Your task to perform on an android device: When is my next appointment? Image 0: 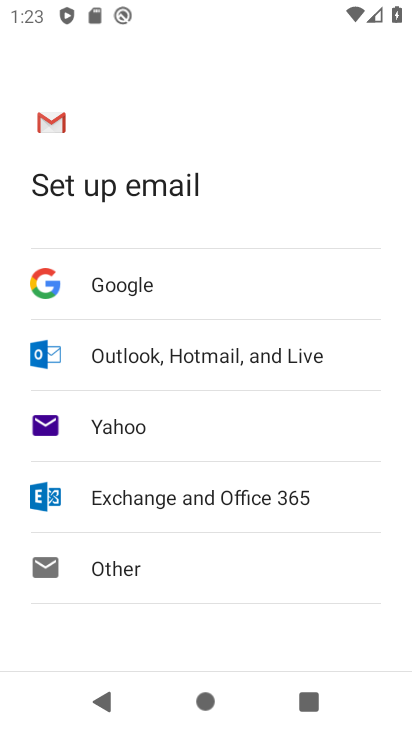
Step 0: press home button
Your task to perform on an android device: When is my next appointment? Image 1: 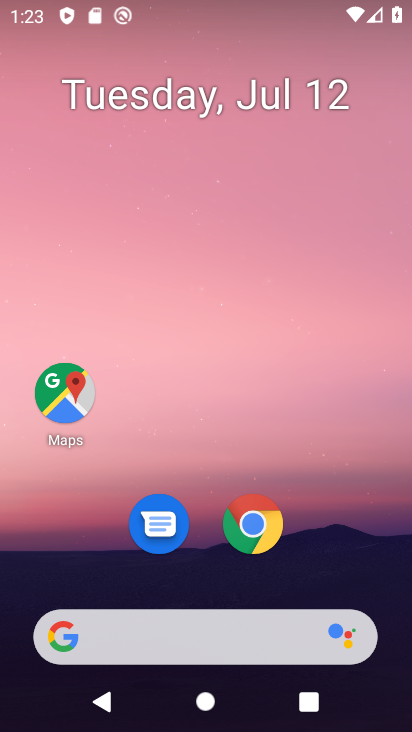
Step 1: drag from (174, 426) to (196, 20)
Your task to perform on an android device: When is my next appointment? Image 2: 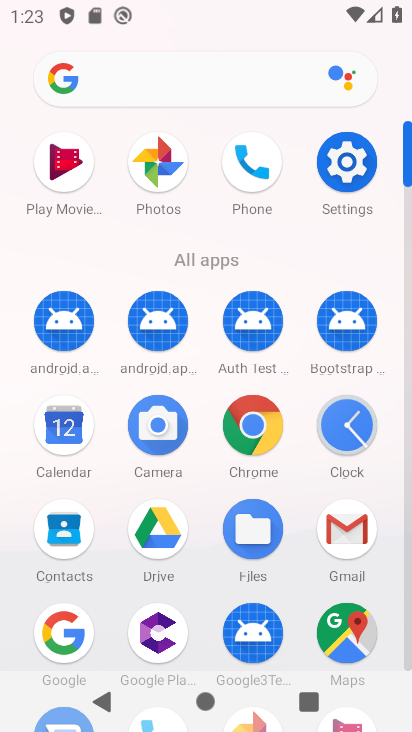
Step 2: click (70, 433)
Your task to perform on an android device: When is my next appointment? Image 3: 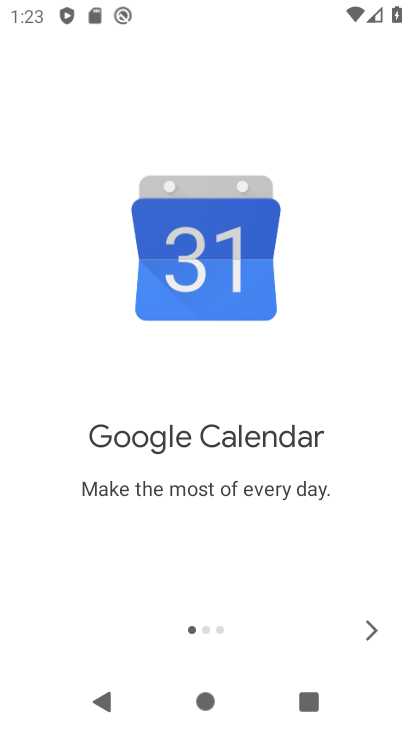
Step 3: click (373, 624)
Your task to perform on an android device: When is my next appointment? Image 4: 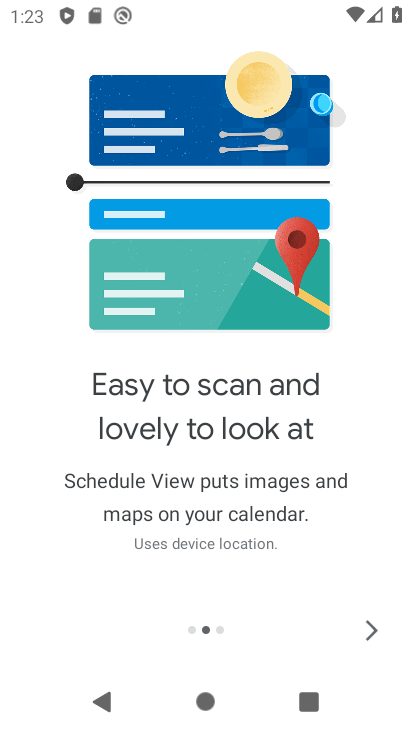
Step 4: click (373, 633)
Your task to perform on an android device: When is my next appointment? Image 5: 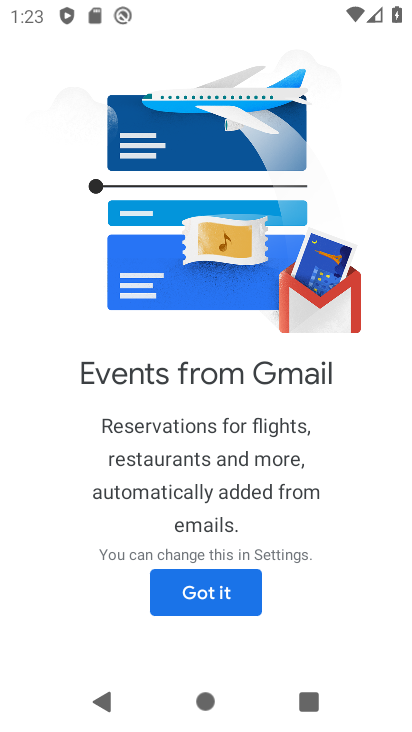
Step 5: click (242, 598)
Your task to perform on an android device: When is my next appointment? Image 6: 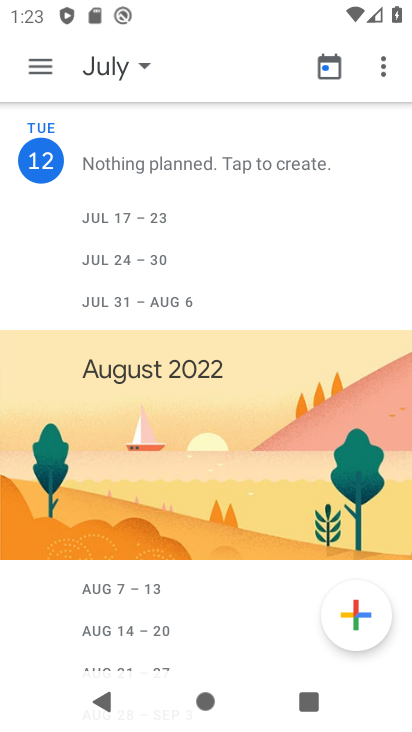
Step 6: task complete